Your task to perform on an android device: Go to Yahoo.com Image 0: 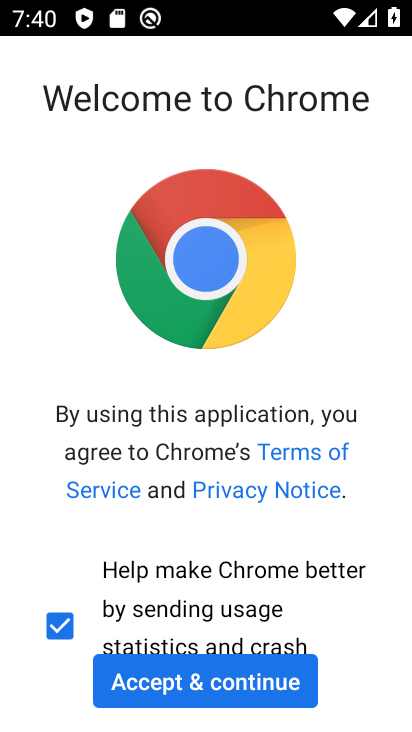
Step 0: press back button
Your task to perform on an android device: Go to Yahoo.com Image 1: 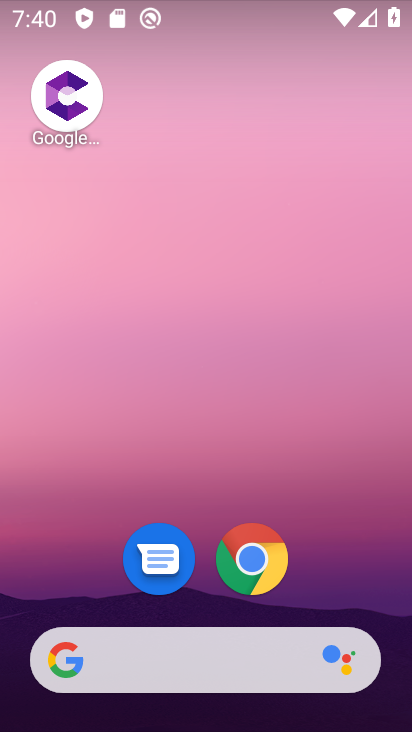
Step 1: click (252, 568)
Your task to perform on an android device: Go to Yahoo.com Image 2: 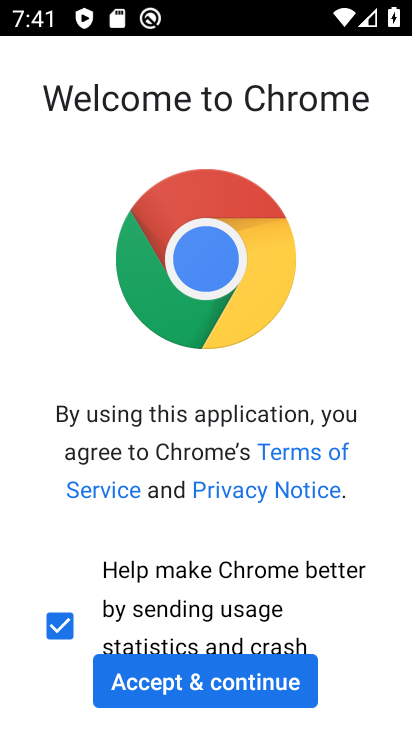
Step 2: click (240, 687)
Your task to perform on an android device: Go to Yahoo.com Image 3: 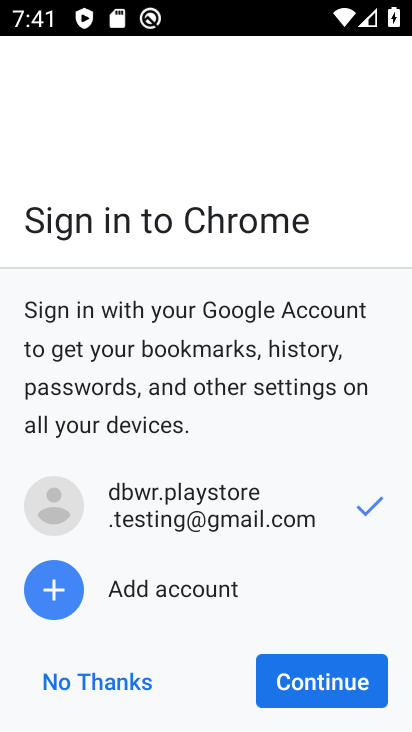
Step 3: click (270, 686)
Your task to perform on an android device: Go to Yahoo.com Image 4: 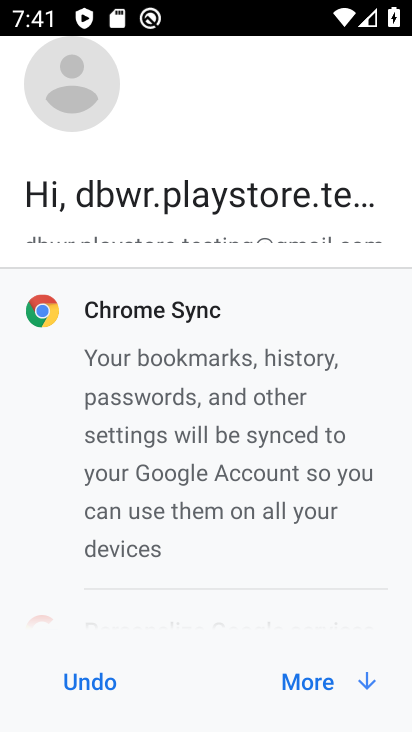
Step 4: click (329, 684)
Your task to perform on an android device: Go to Yahoo.com Image 5: 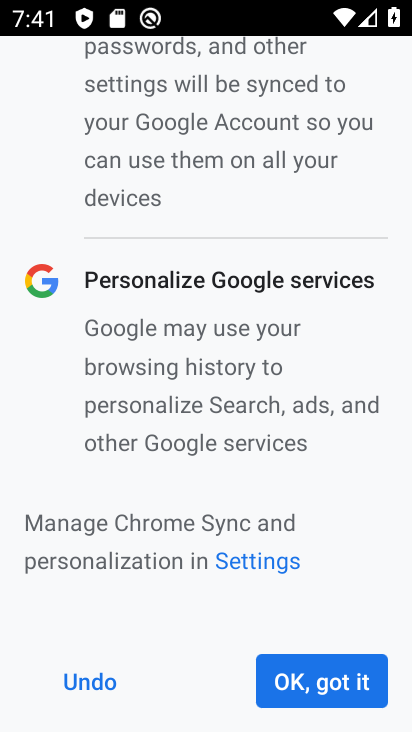
Step 5: click (348, 684)
Your task to perform on an android device: Go to Yahoo.com Image 6: 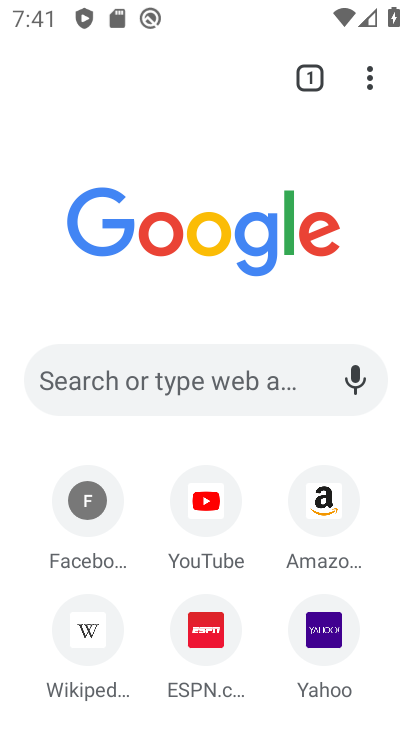
Step 6: click (334, 621)
Your task to perform on an android device: Go to Yahoo.com Image 7: 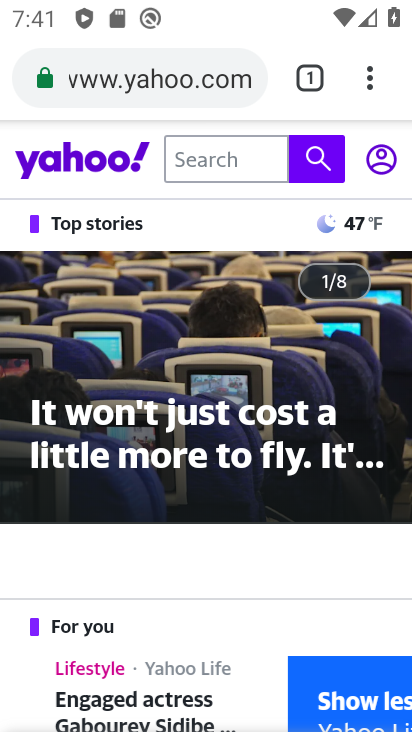
Step 7: task complete